Your task to perform on an android device: When is my next meeting? Image 0: 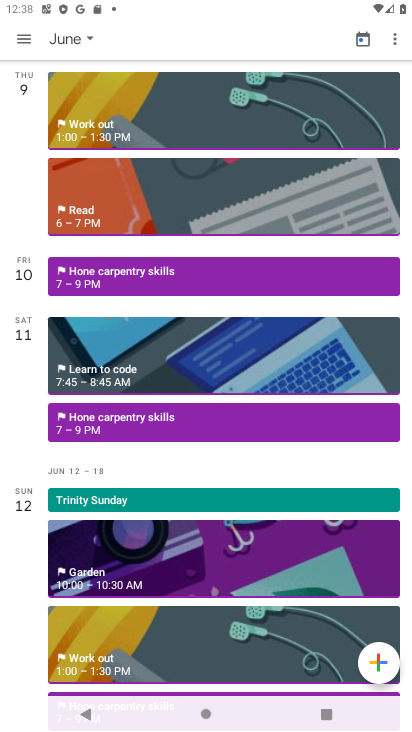
Step 0: press home button
Your task to perform on an android device: When is my next meeting? Image 1: 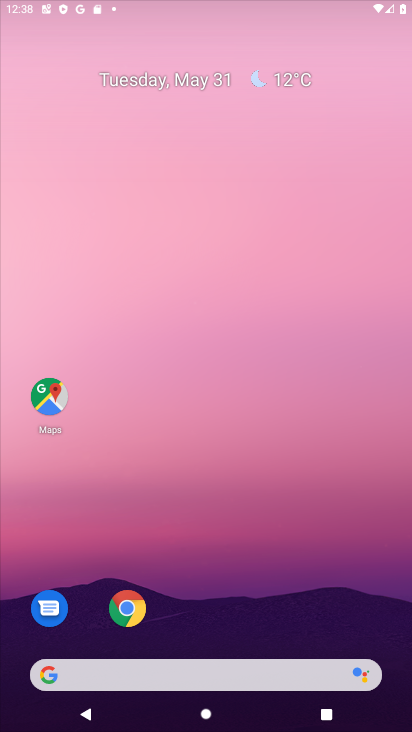
Step 1: drag from (173, 641) to (286, 73)
Your task to perform on an android device: When is my next meeting? Image 2: 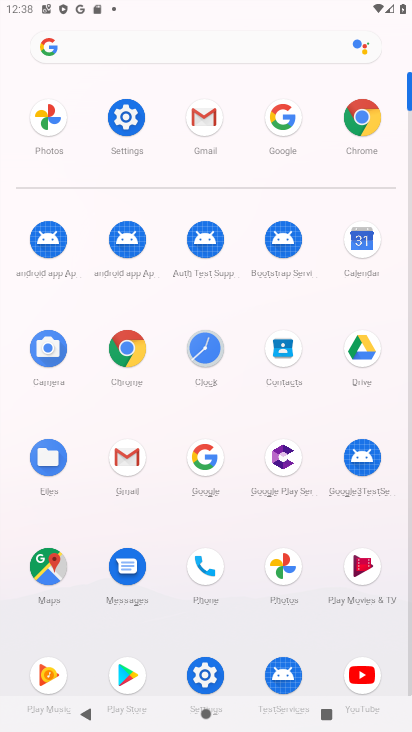
Step 2: click (363, 243)
Your task to perform on an android device: When is my next meeting? Image 3: 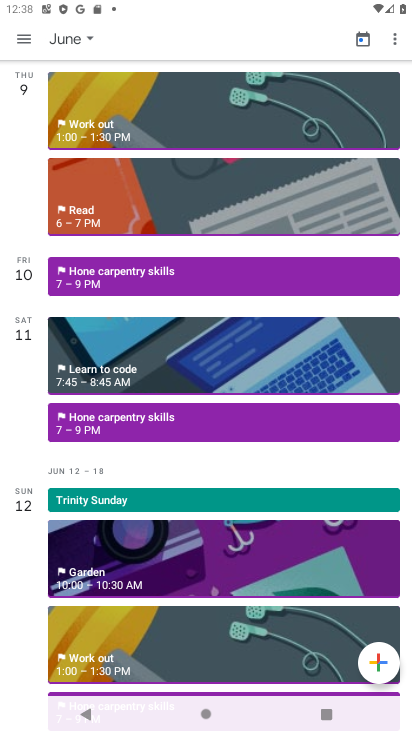
Step 3: click (88, 40)
Your task to perform on an android device: When is my next meeting? Image 4: 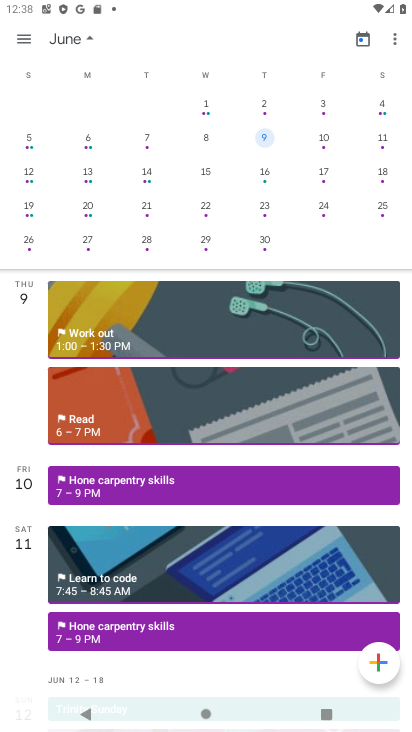
Step 4: drag from (88, 249) to (401, 239)
Your task to perform on an android device: When is my next meeting? Image 5: 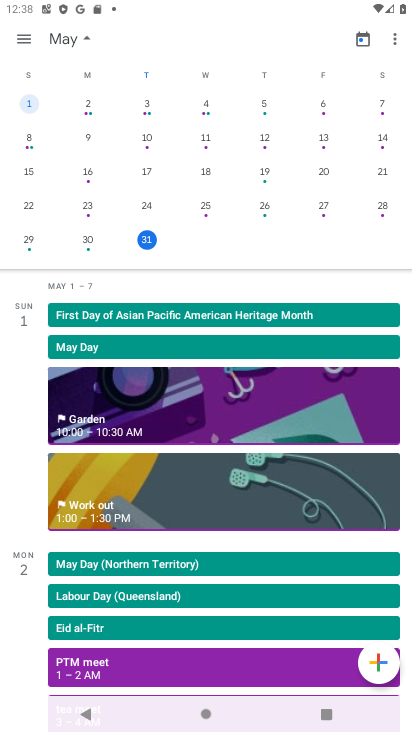
Step 5: drag from (374, 242) to (74, 218)
Your task to perform on an android device: When is my next meeting? Image 6: 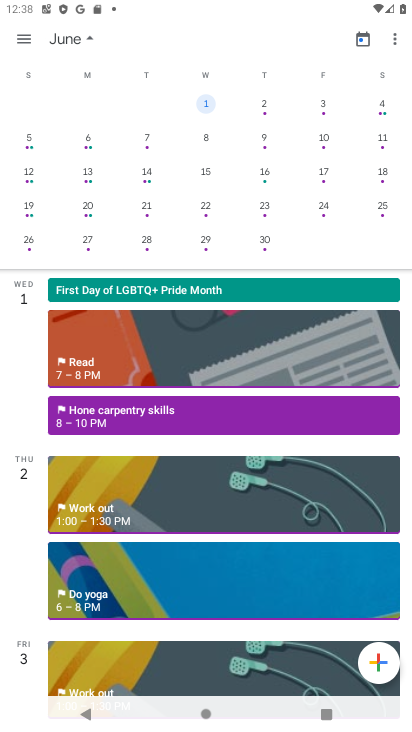
Step 6: click (206, 102)
Your task to perform on an android device: When is my next meeting? Image 7: 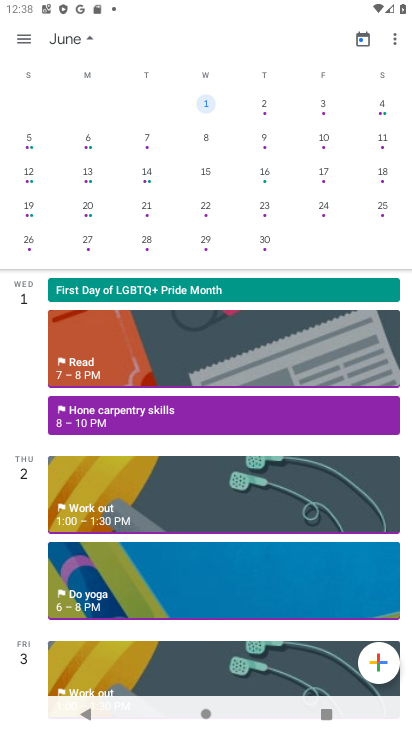
Step 7: task complete